Your task to perform on an android device: turn on sleep mode Image 0: 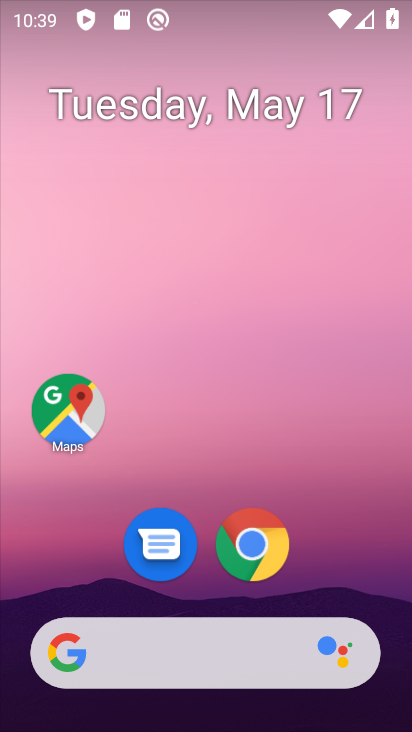
Step 0: drag from (306, 670) to (315, 19)
Your task to perform on an android device: turn on sleep mode Image 1: 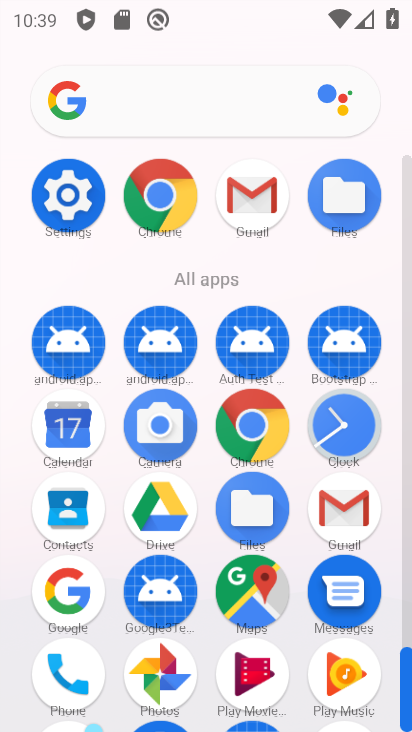
Step 1: click (81, 212)
Your task to perform on an android device: turn on sleep mode Image 2: 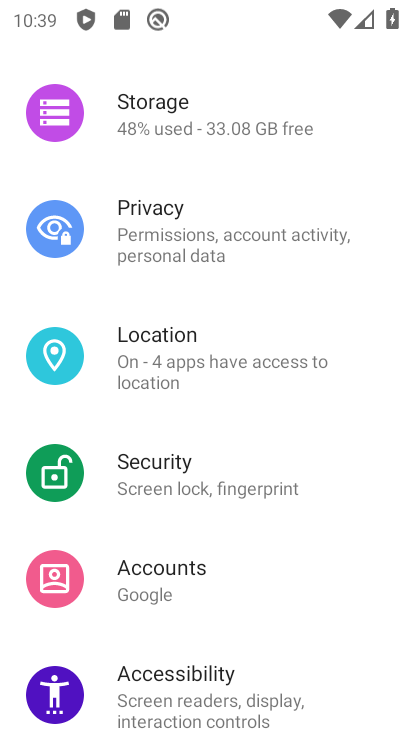
Step 2: drag from (176, 216) to (263, 605)
Your task to perform on an android device: turn on sleep mode Image 3: 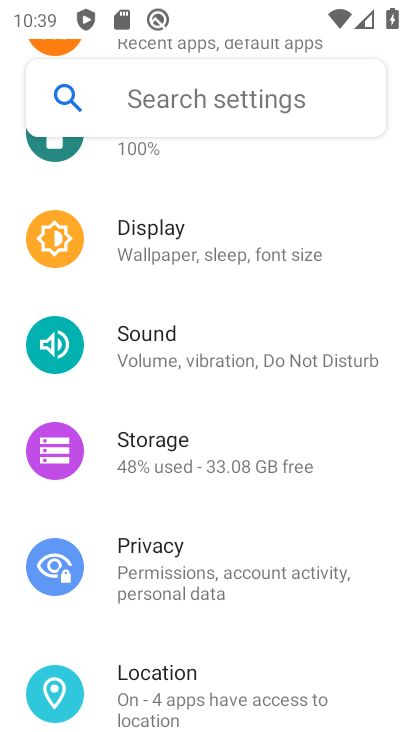
Step 3: click (221, 374)
Your task to perform on an android device: turn on sleep mode Image 4: 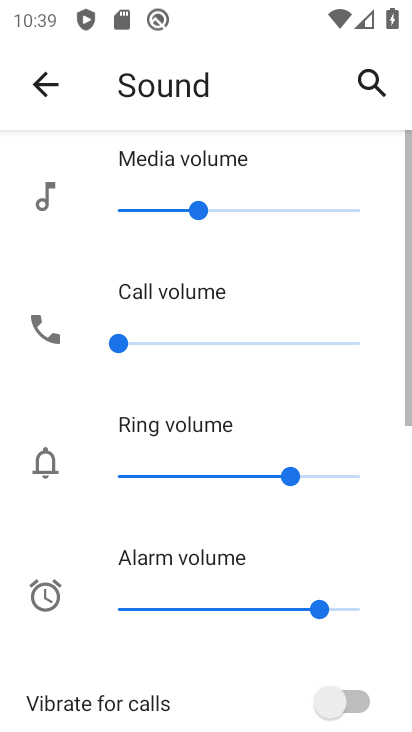
Step 4: click (218, 361)
Your task to perform on an android device: turn on sleep mode Image 5: 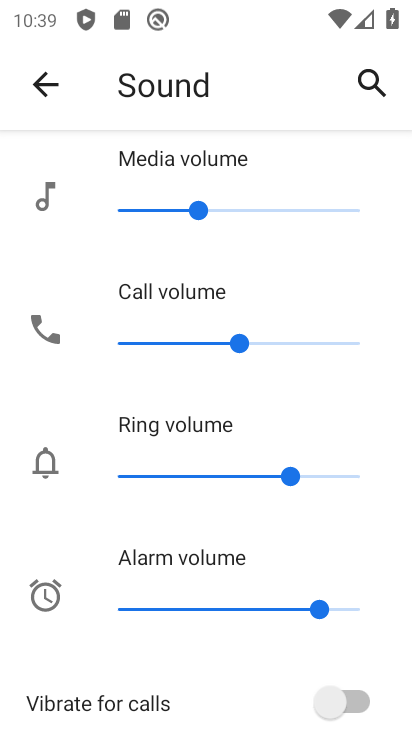
Step 5: click (128, 340)
Your task to perform on an android device: turn on sleep mode Image 6: 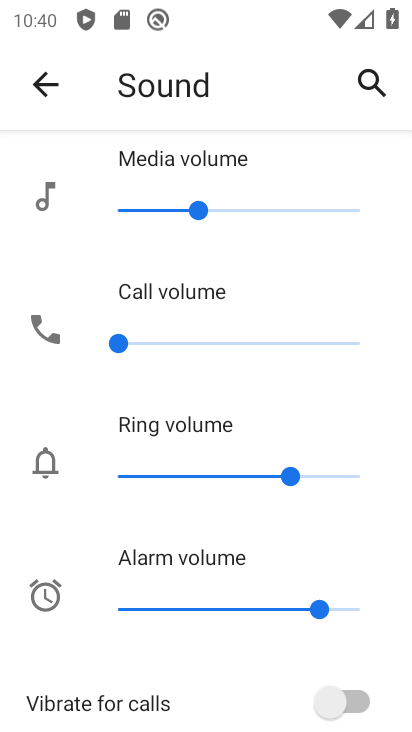
Step 6: task complete